Your task to perform on an android device: open chrome and create a bookmark for the current page Image 0: 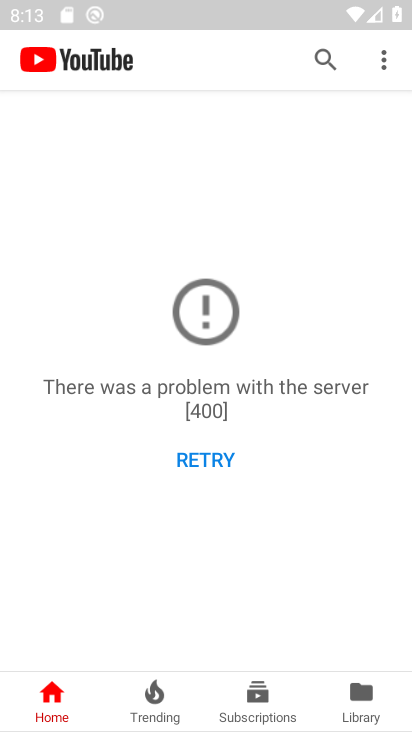
Step 0: press home button
Your task to perform on an android device: open chrome and create a bookmark for the current page Image 1: 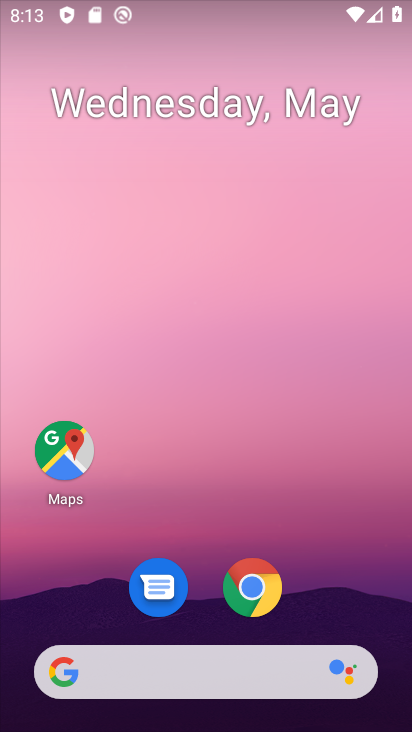
Step 1: click (248, 581)
Your task to perform on an android device: open chrome and create a bookmark for the current page Image 2: 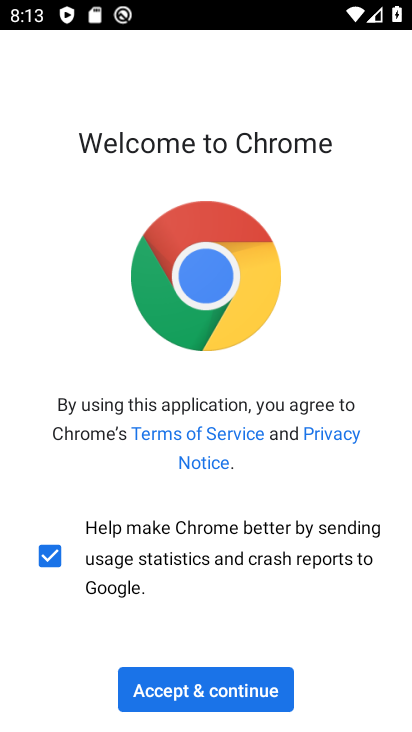
Step 2: click (210, 691)
Your task to perform on an android device: open chrome and create a bookmark for the current page Image 3: 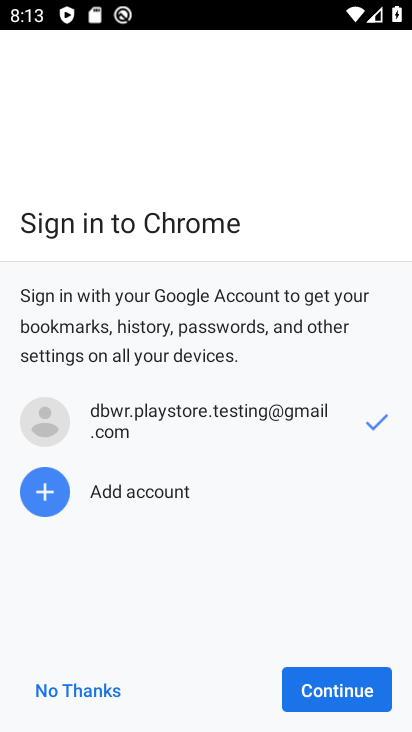
Step 3: click (322, 693)
Your task to perform on an android device: open chrome and create a bookmark for the current page Image 4: 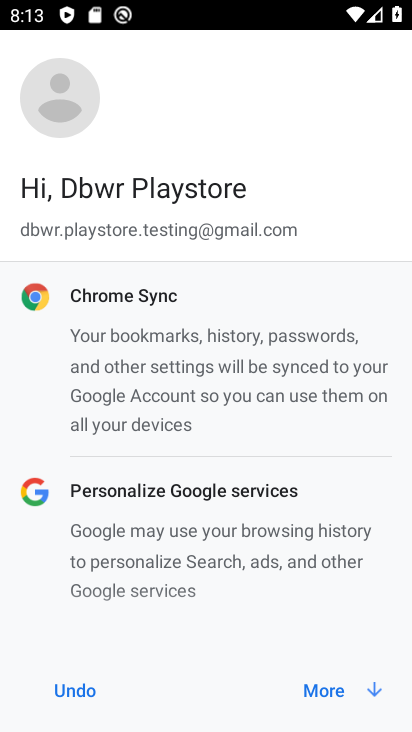
Step 4: click (326, 679)
Your task to perform on an android device: open chrome and create a bookmark for the current page Image 5: 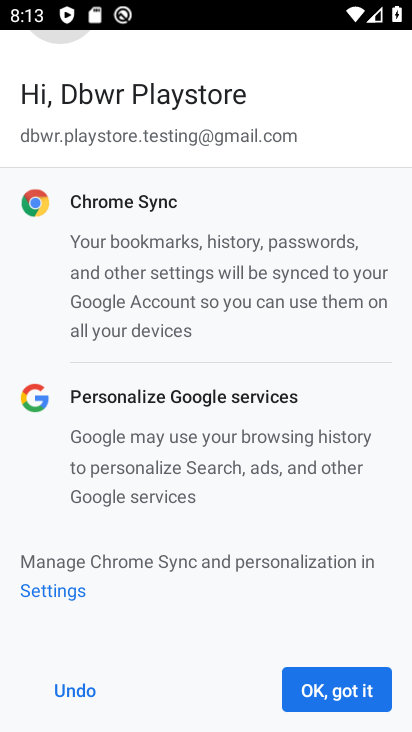
Step 5: click (327, 680)
Your task to perform on an android device: open chrome and create a bookmark for the current page Image 6: 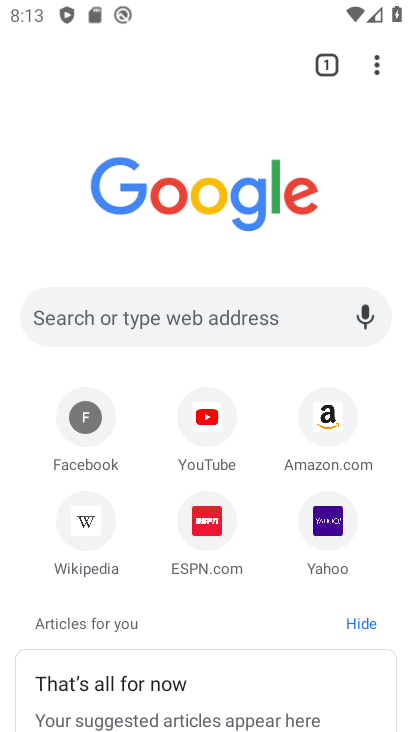
Step 6: click (383, 79)
Your task to perform on an android device: open chrome and create a bookmark for the current page Image 7: 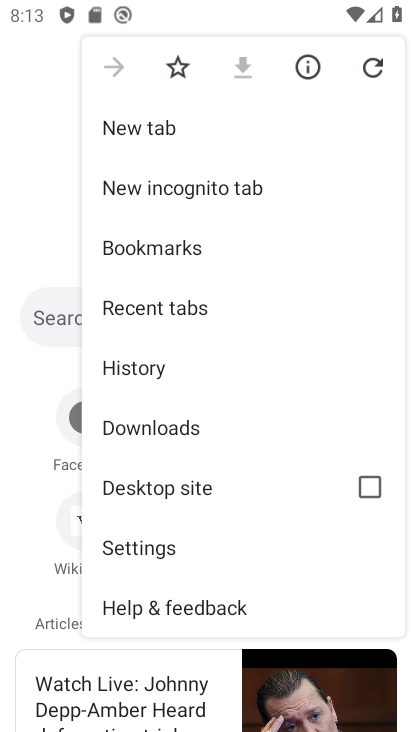
Step 7: click (180, 71)
Your task to perform on an android device: open chrome and create a bookmark for the current page Image 8: 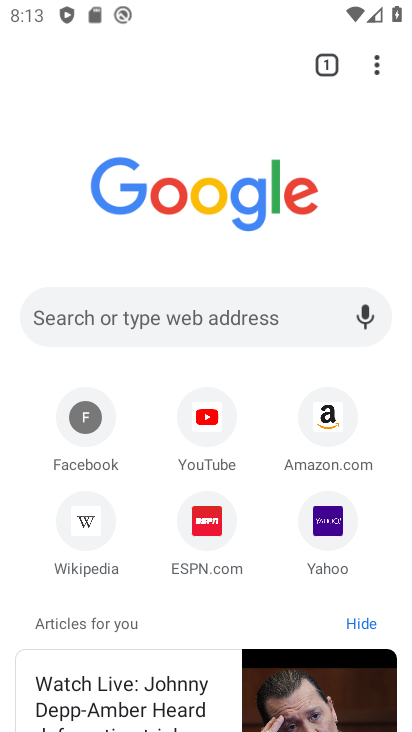
Step 8: click (372, 67)
Your task to perform on an android device: open chrome and create a bookmark for the current page Image 9: 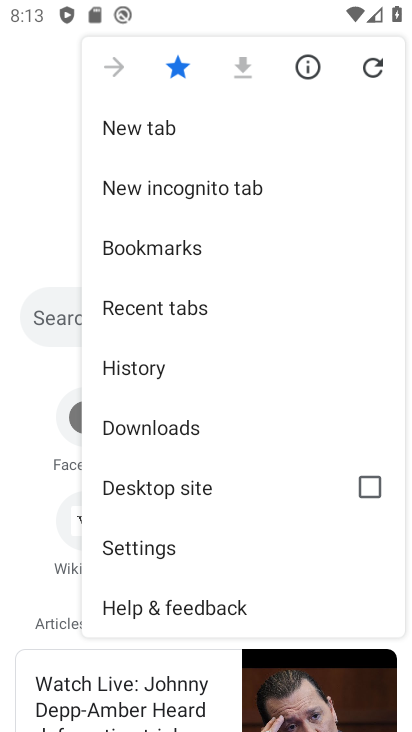
Step 9: task complete